Your task to perform on an android device: turn off improve location accuracy Image 0: 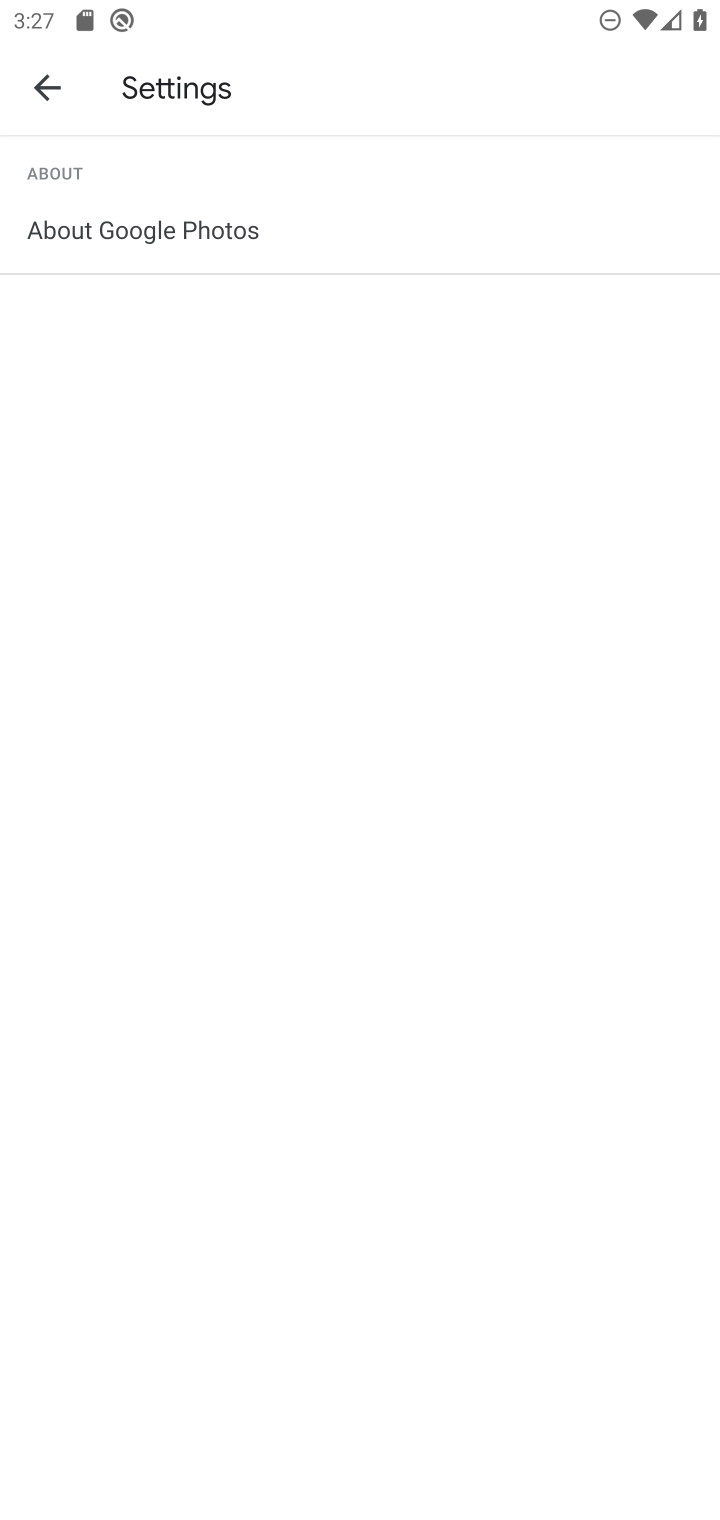
Step 0: press home button
Your task to perform on an android device: turn off improve location accuracy Image 1: 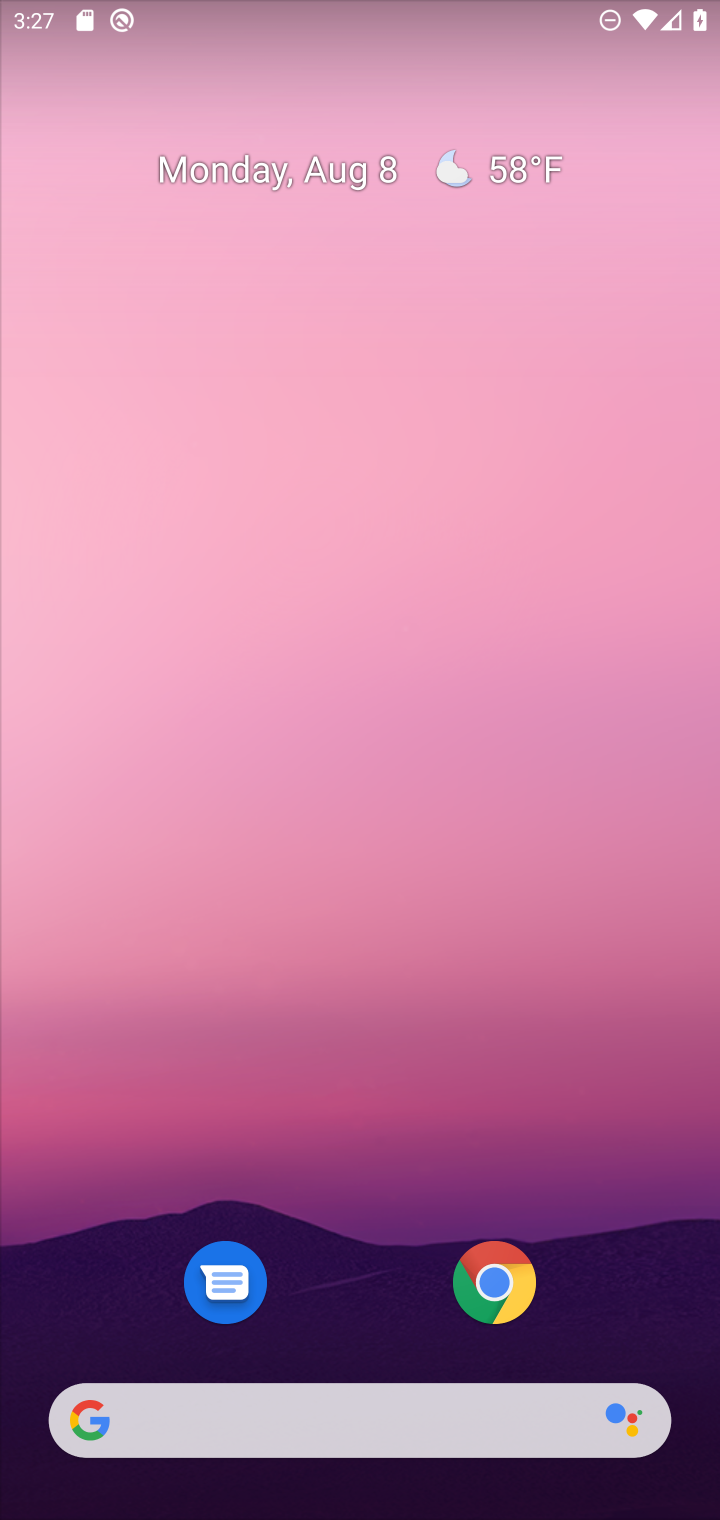
Step 1: drag from (375, 1228) to (641, 271)
Your task to perform on an android device: turn off improve location accuracy Image 2: 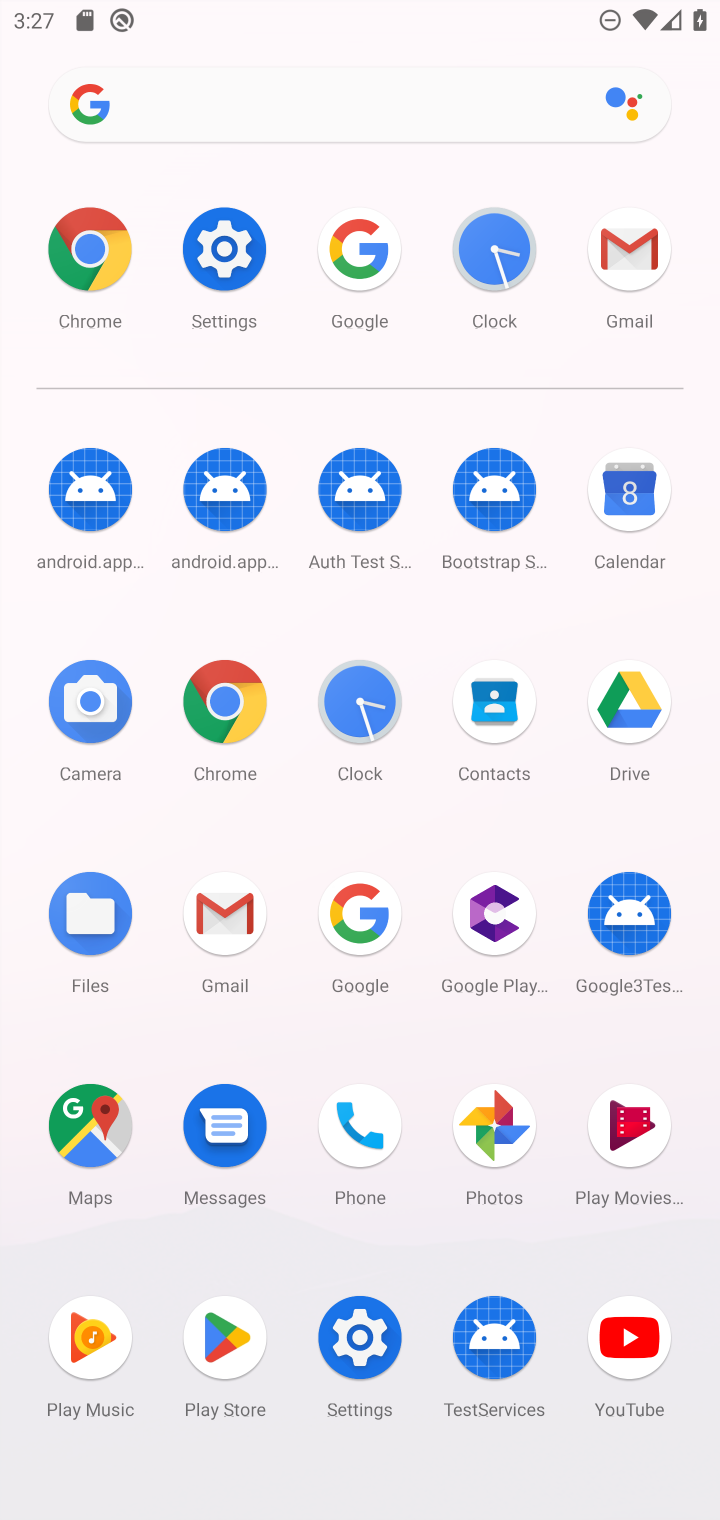
Step 2: click (355, 1338)
Your task to perform on an android device: turn off improve location accuracy Image 3: 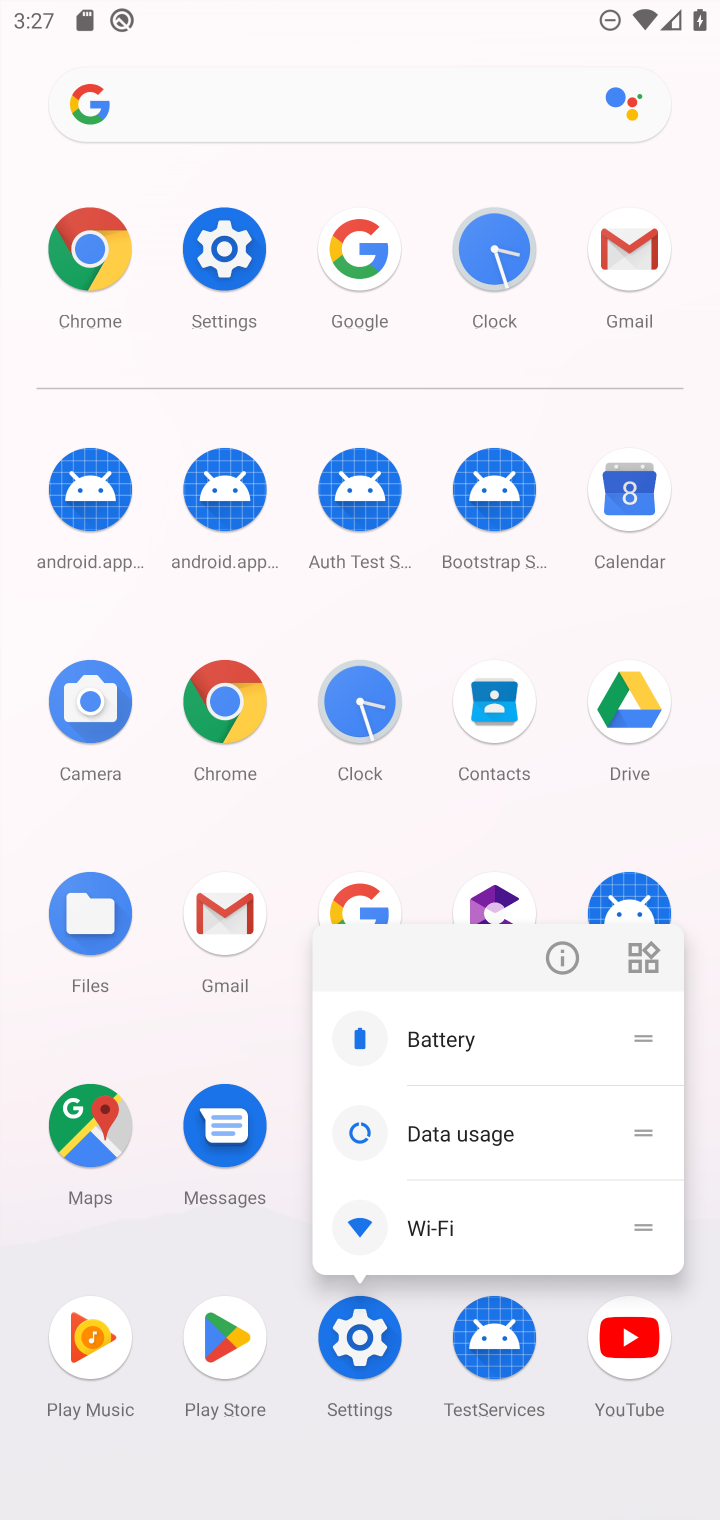
Step 3: click (356, 1332)
Your task to perform on an android device: turn off improve location accuracy Image 4: 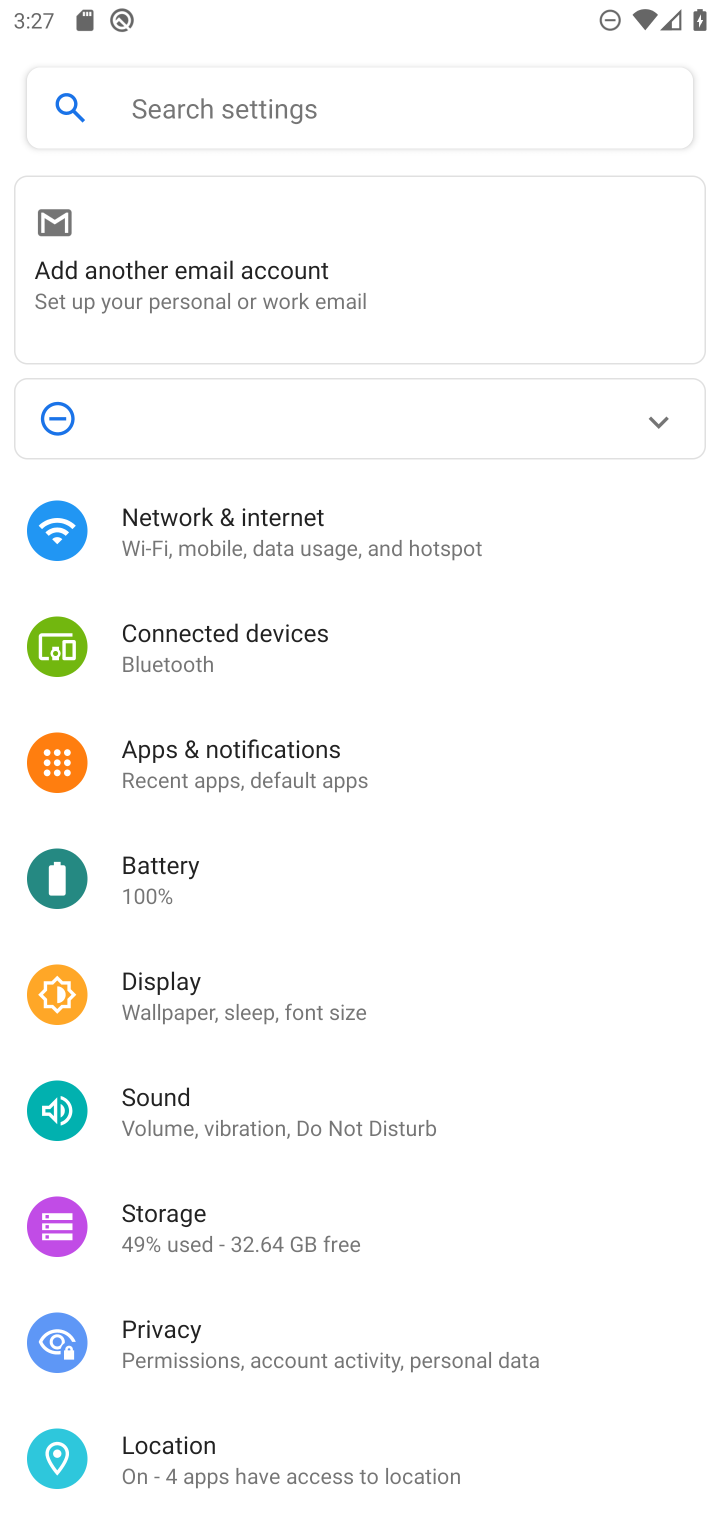
Step 4: drag from (518, 1222) to (516, 731)
Your task to perform on an android device: turn off improve location accuracy Image 5: 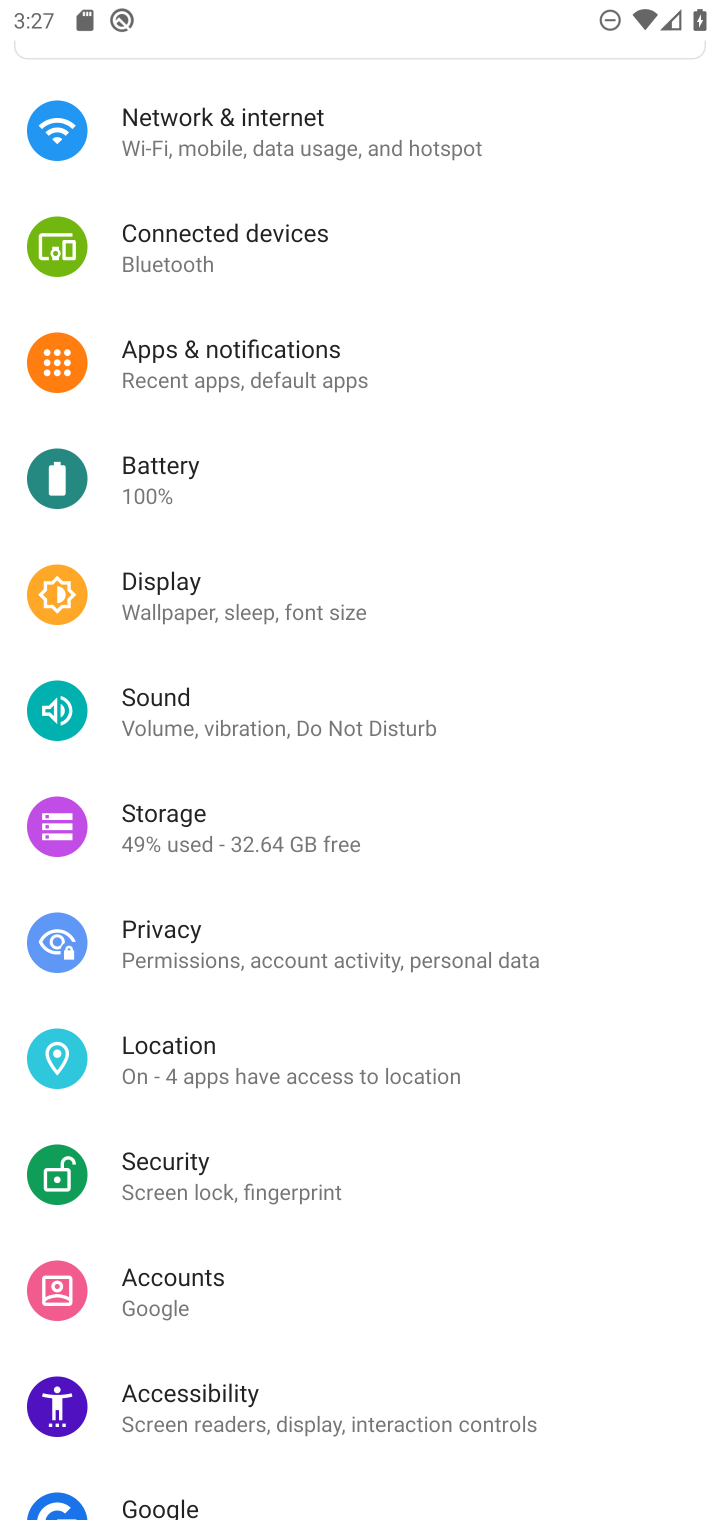
Step 5: click (214, 1069)
Your task to perform on an android device: turn off improve location accuracy Image 6: 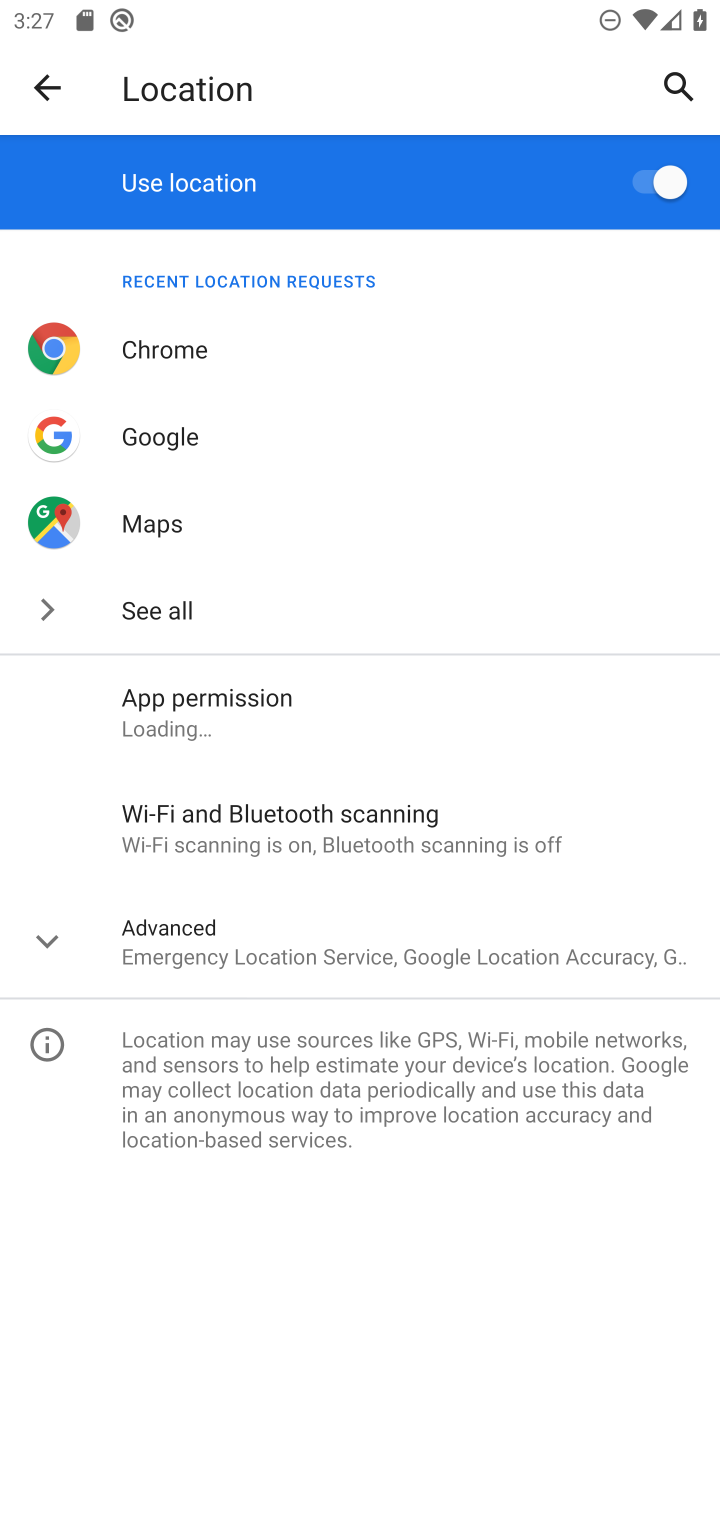
Step 6: click (312, 966)
Your task to perform on an android device: turn off improve location accuracy Image 7: 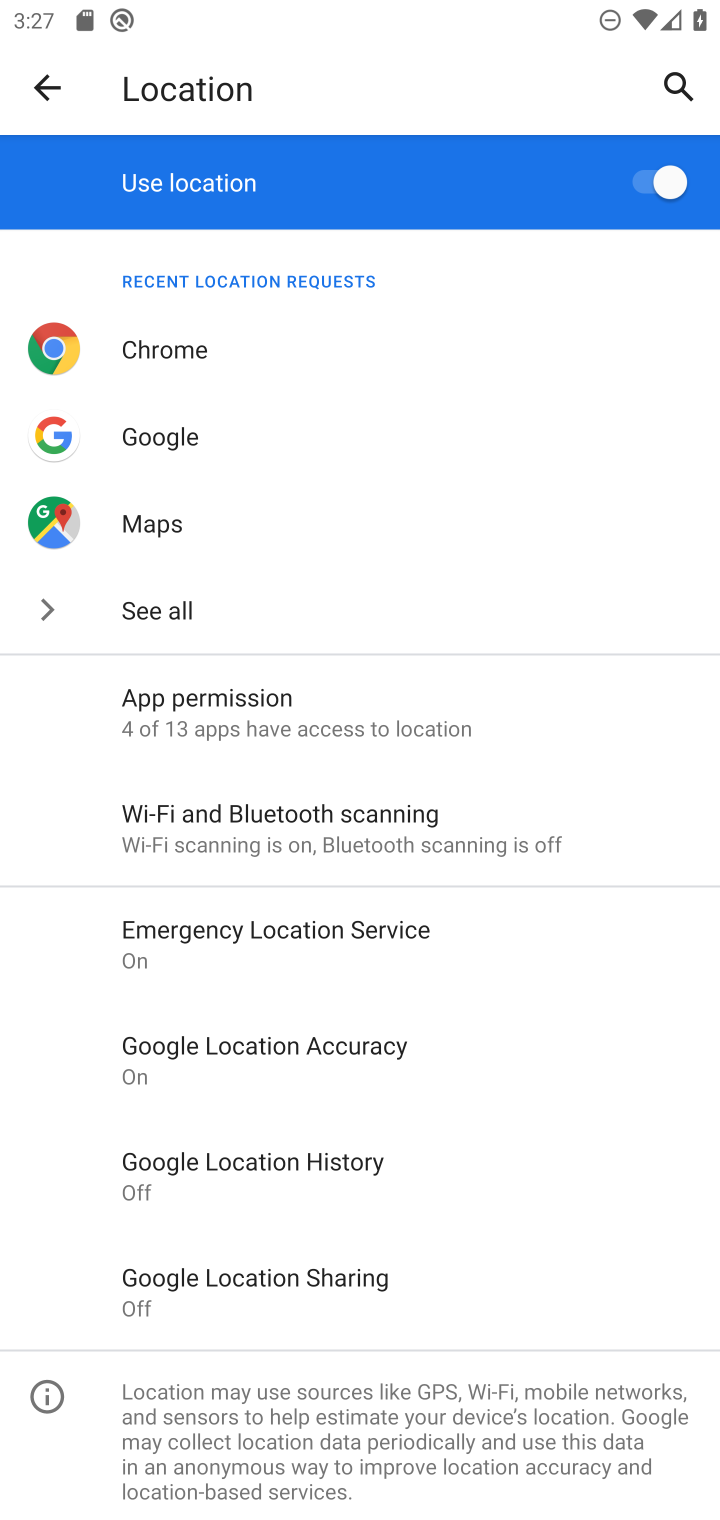
Step 7: click (337, 1057)
Your task to perform on an android device: turn off improve location accuracy Image 8: 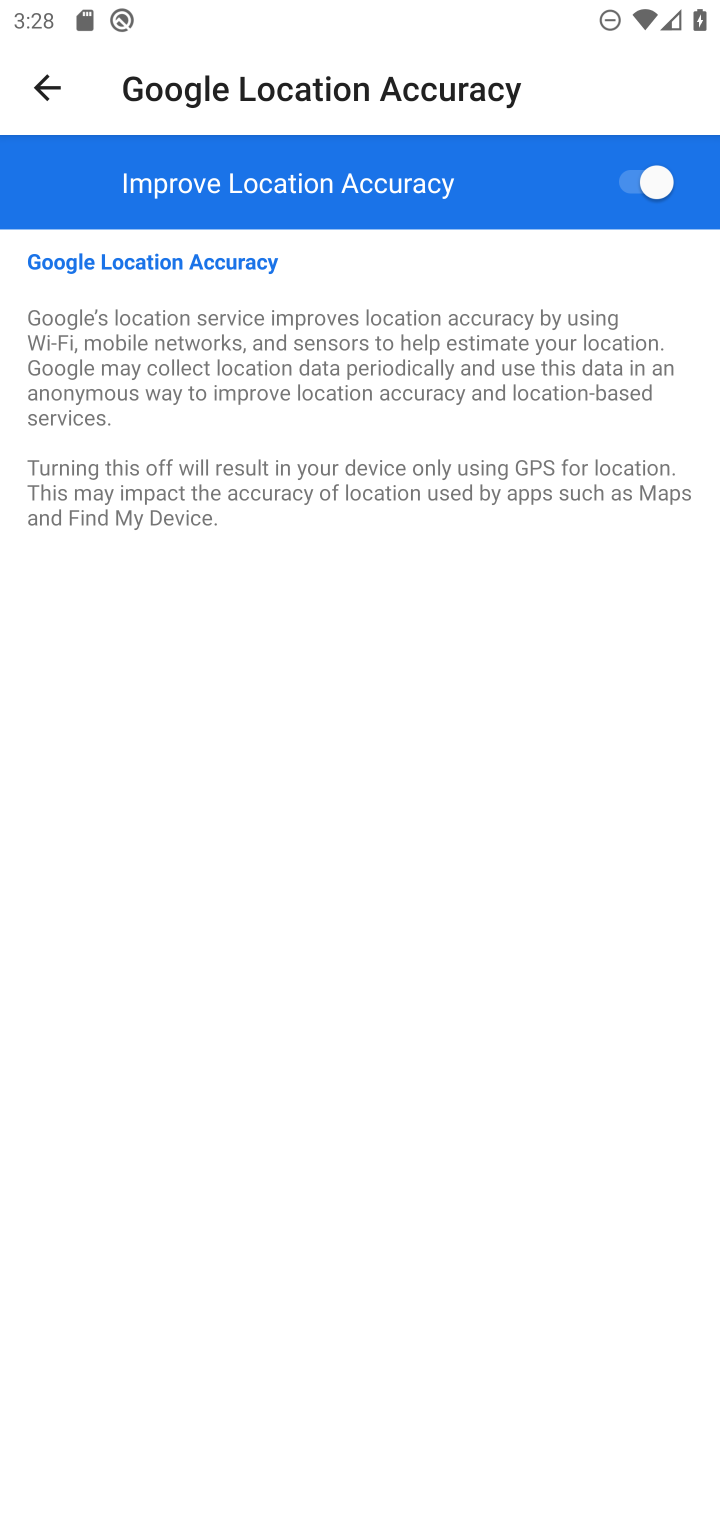
Step 8: click (628, 156)
Your task to perform on an android device: turn off improve location accuracy Image 9: 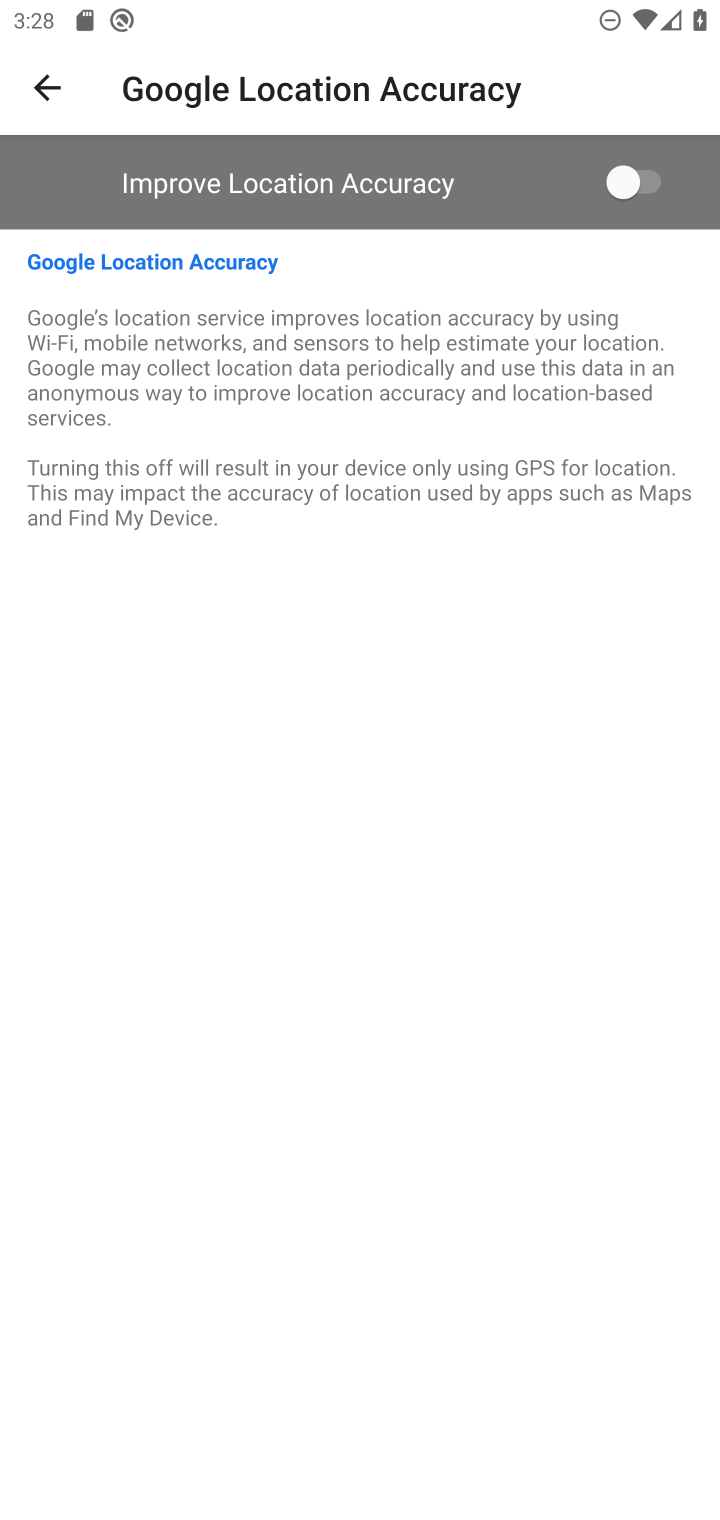
Step 9: task complete